Your task to perform on an android device: open chrome privacy settings Image 0: 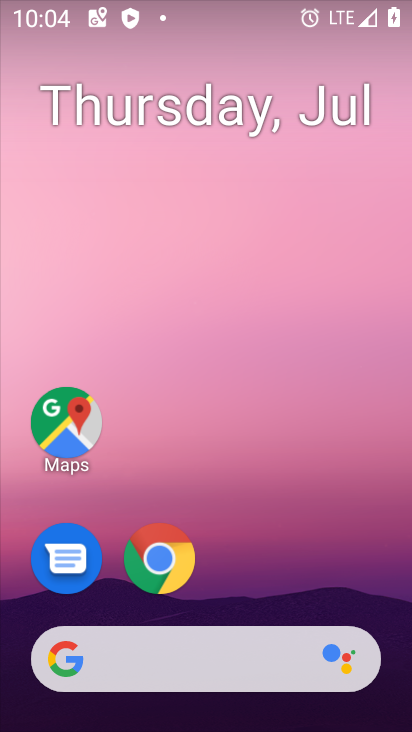
Step 0: drag from (314, 552) to (35, 703)
Your task to perform on an android device: open chrome privacy settings Image 1: 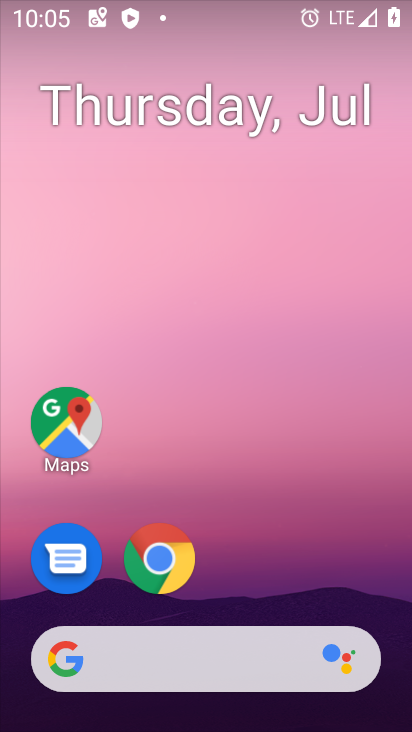
Step 1: drag from (359, 574) to (342, 86)
Your task to perform on an android device: open chrome privacy settings Image 2: 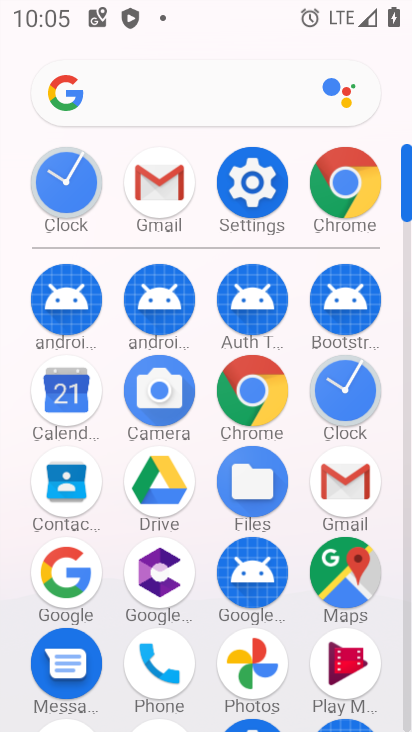
Step 2: click (262, 380)
Your task to perform on an android device: open chrome privacy settings Image 3: 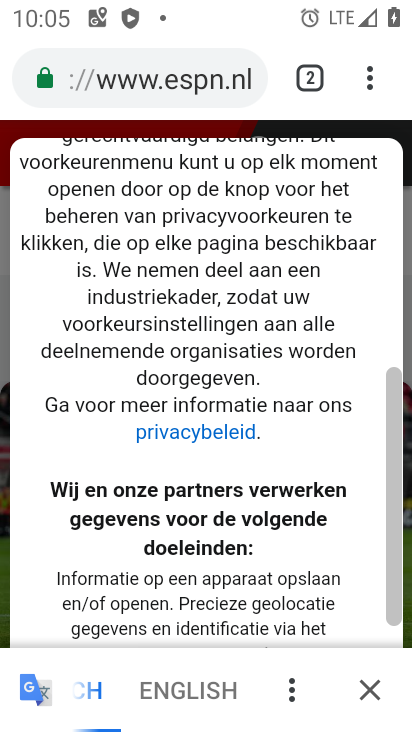
Step 3: click (372, 89)
Your task to perform on an android device: open chrome privacy settings Image 4: 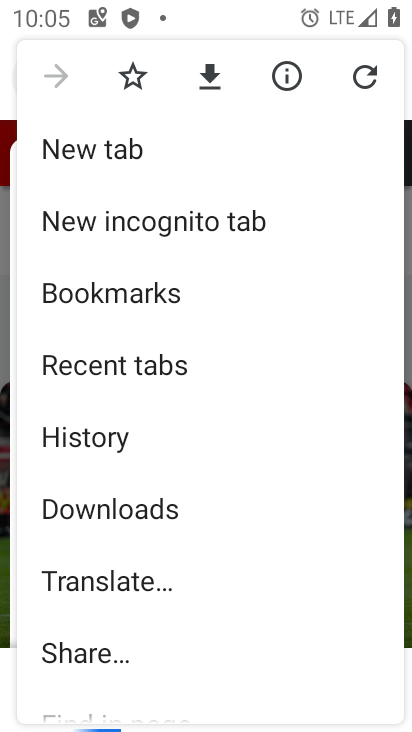
Step 4: drag from (323, 474) to (316, 382)
Your task to perform on an android device: open chrome privacy settings Image 5: 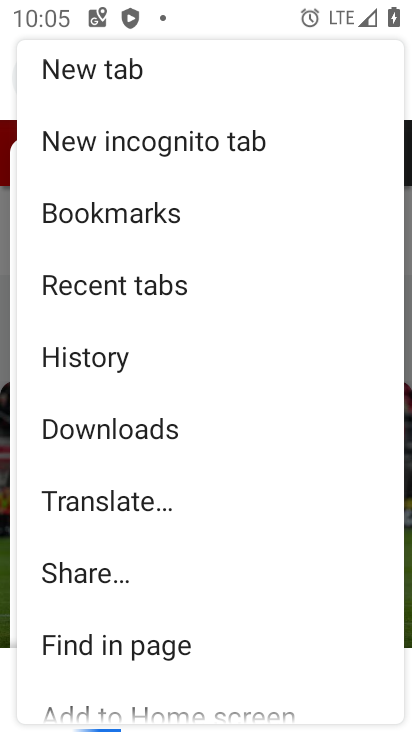
Step 5: drag from (304, 519) to (318, 402)
Your task to perform on an android device: open chrome privacy settings Image 6: 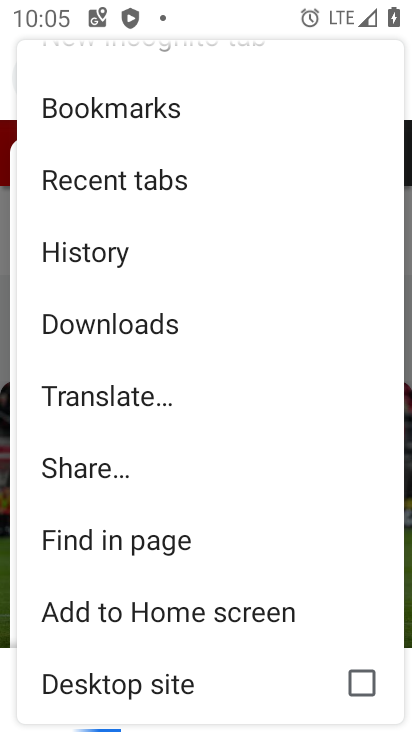
Step 6: drag from (316, 510) to (329, 331)
Your task to perform on an android device: open chrome privacy settings Image 7: 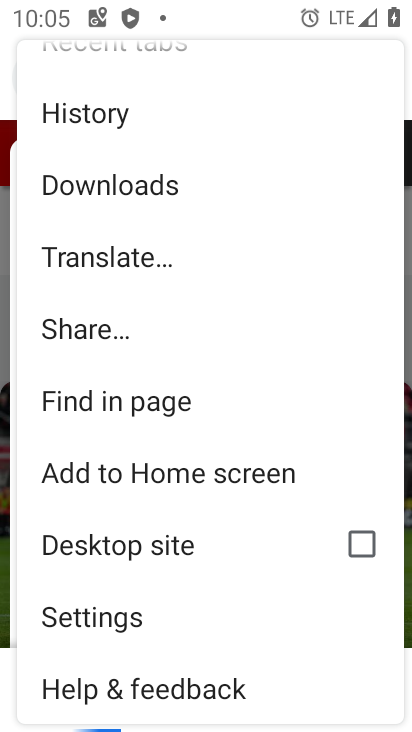
Step 7: click (131, 619)
Your task to perform on an android device: open chrome privacy settings Image 8: 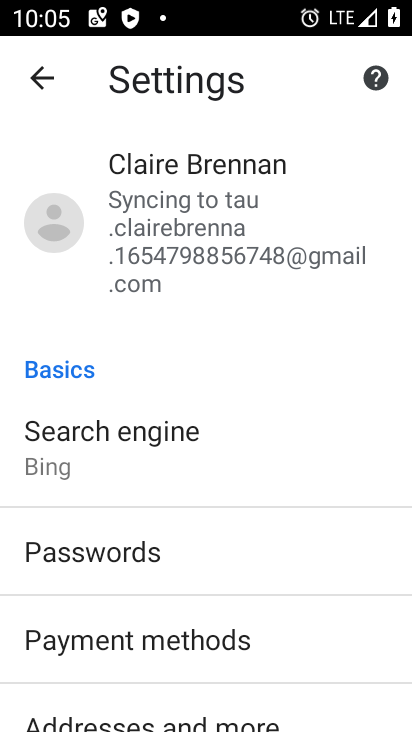
Step 8: drag from (285, 550) to (290, 461)
Your task to perform on an android device: open chrome privacy settings Image 9: 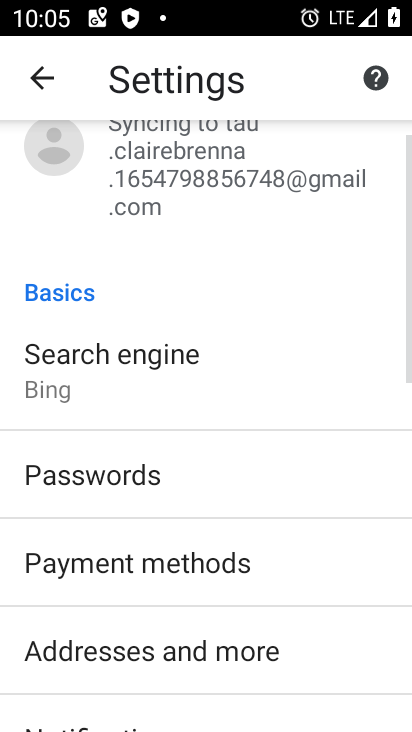
Step 9: drag from (285, 588) to (290, 496)
Your task to perform on an android device: open chrome privacy settings Image 10: 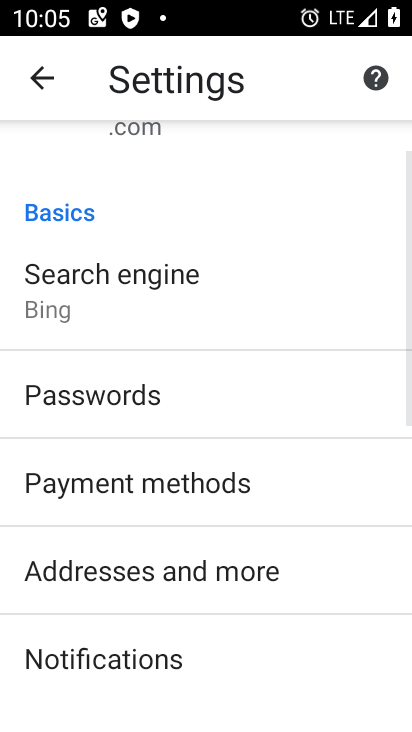
Step 10: drag from (289, 621) to (289, 502)
Your task to perform on an android device: open chrome privacy settings Image 11: 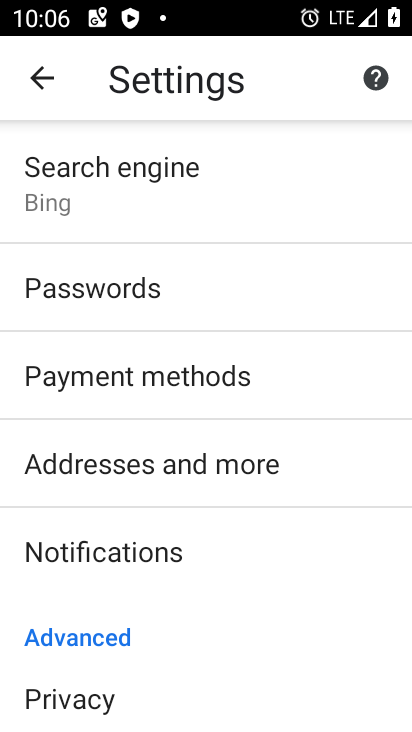
Step 11: drag from (278, 581) to (280, 477)
Your task to perform on an android device: open chrome privacy settings Image 12: 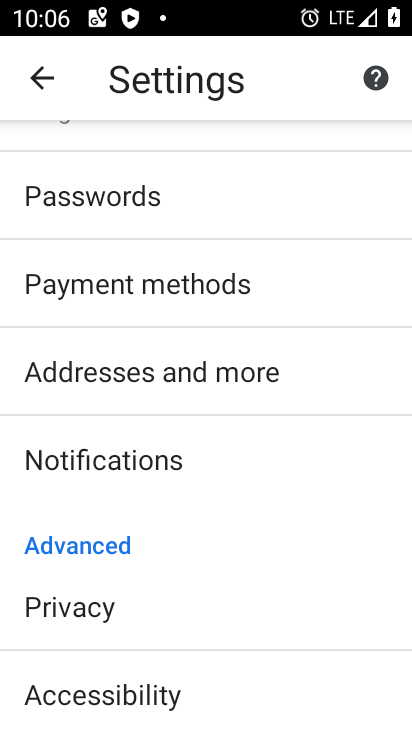
Step 12: drag from (276, 581) to (271, 453)
Your task to perform on an android device: open chrome privacy settings Image 13: 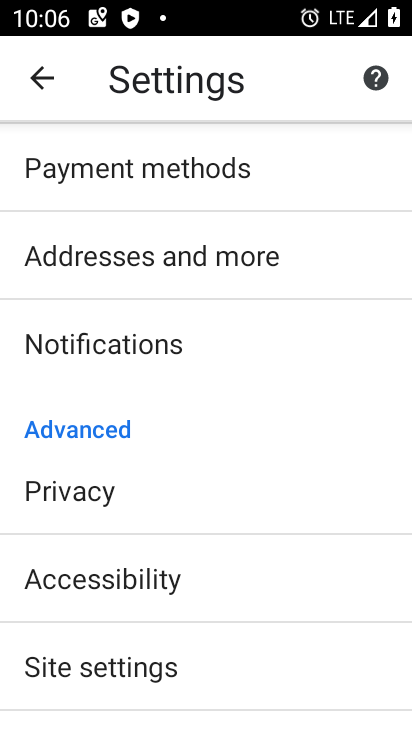
Step 13: drag from (247, 601) to (264, 494)
Your task to perform on an android device: open chrome privacy settings Image 14: 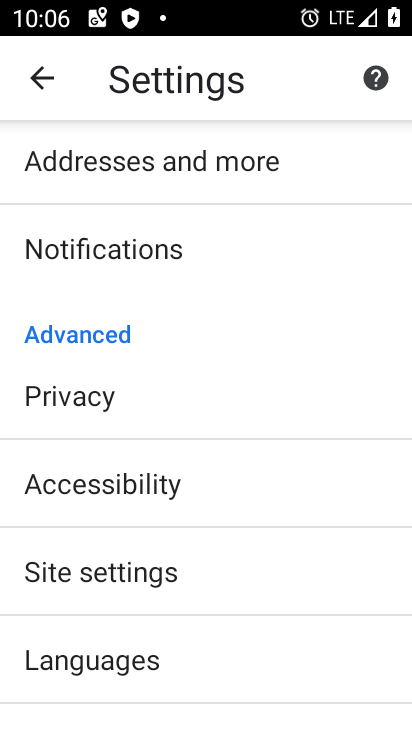
Step 14: click (259, 414)
Your task to perform on an android device: open chrome privacy settings Image 15: 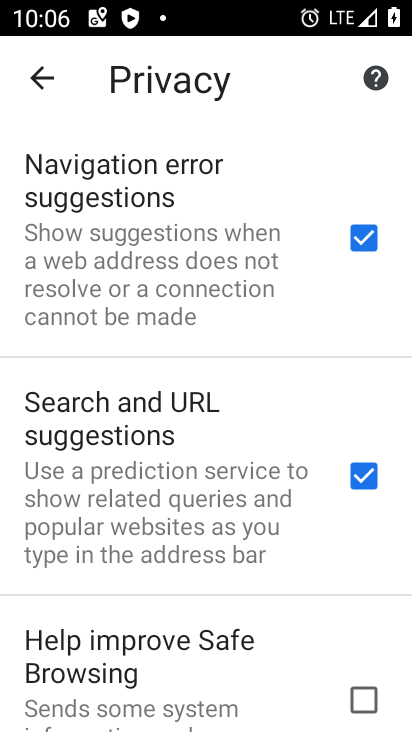
Step 15: task complete